Your task to perform on an android device: turn off data saver in the chrome app Image 0: 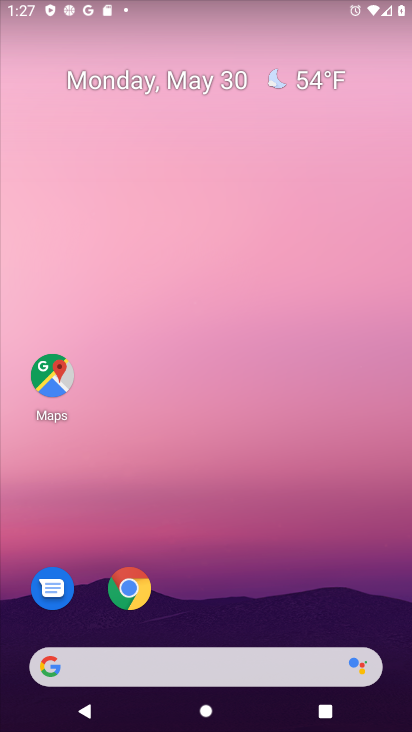
Step 0: click (131, 590)
Your task to perform on an android device: turn off data saver in the chrome app Image 1: 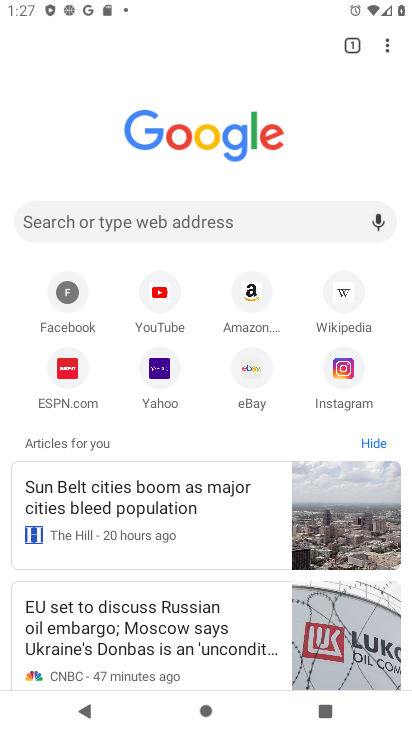
Step 1: click (388, 45)
Your task to perform on an android device: turn off data saver in the chrome app Image 2: 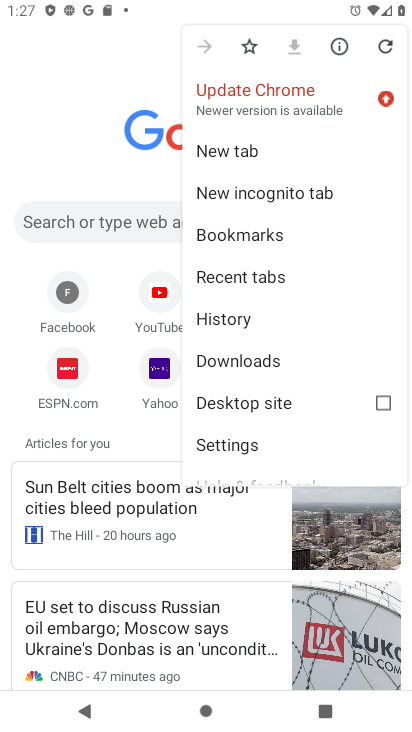
Step 2: click (238, 444)
Your task to perform on an android device: turn off data saver in the chrome app Image 3: 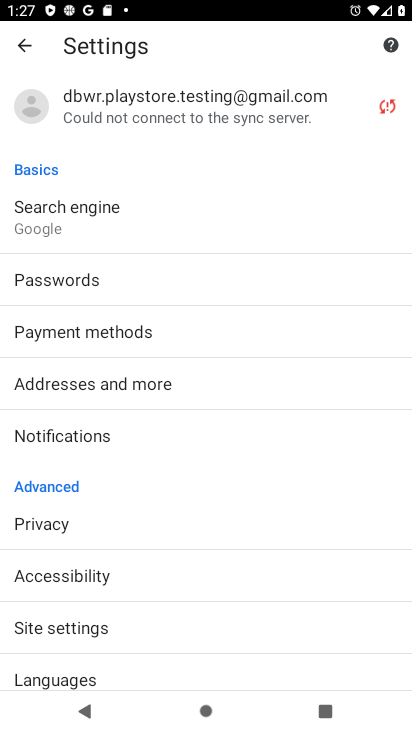
Step 3: drag from (130, 511) to (161, 410)
Your task to perform on an android device: turn off data saver in the chrome app Image 4: 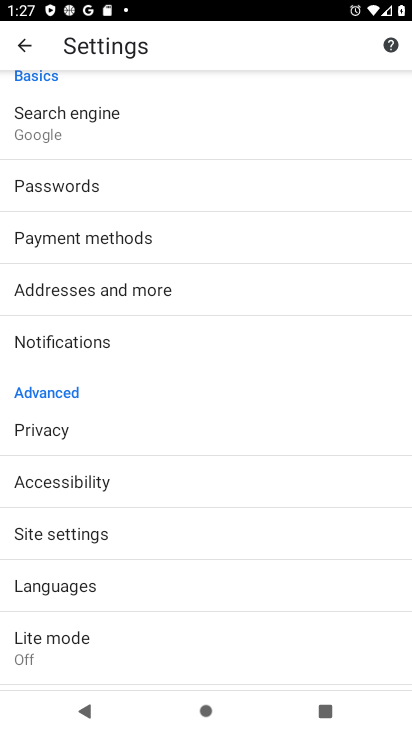
Step 4: click (53, 634)
Your task to perform on an android device: turn off data saver in the chrome app Image 5: 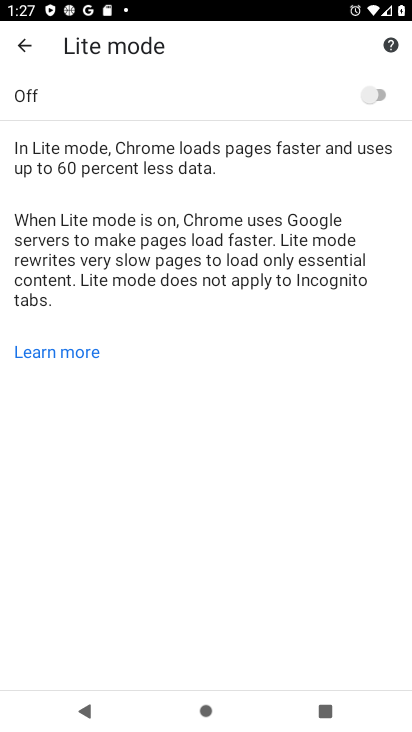
Step 5: task complete